Your task to perform on an android device: show emergency info Image 0: 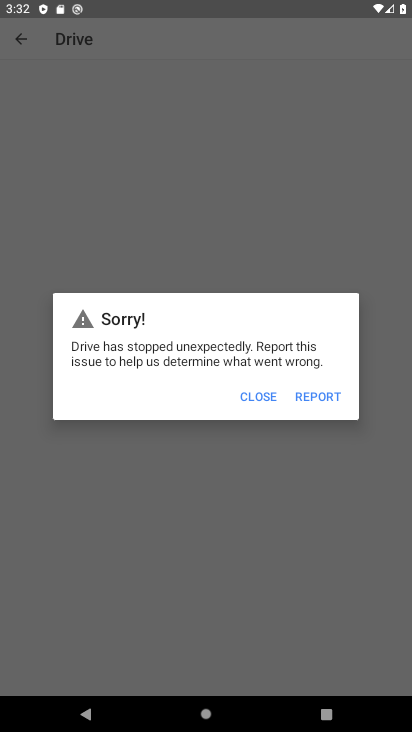
Step 0: press home button
Your task to perform on an android device: show emergency info Image 1: 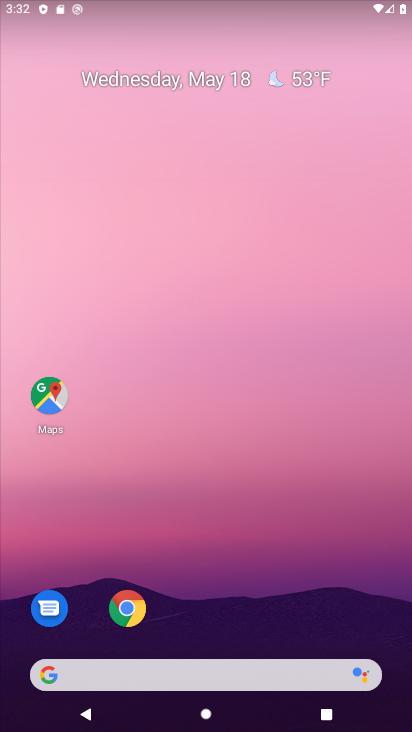
Step 1: drag from (192, 569) to (186, 27)
Your task to perform on an android device: show emergency info Image 2: 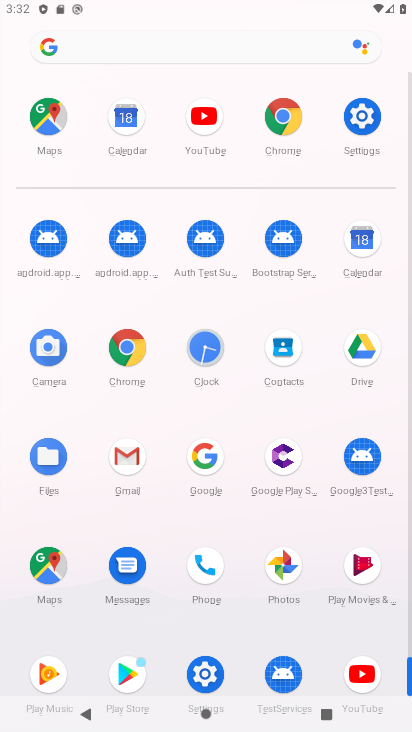
Step 2: click (358, 120)
Your task to perform on an android device: show emergency info Image 3: 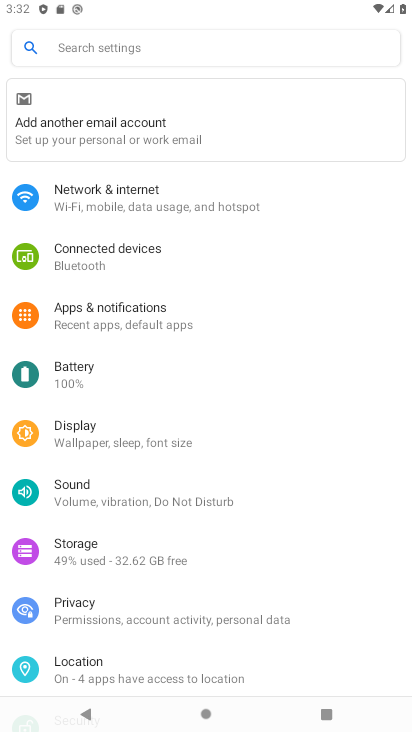
Step 3: drag from (278, 605) to (227, 124)
Your task to perform on an android device: show emergency info Image 4: 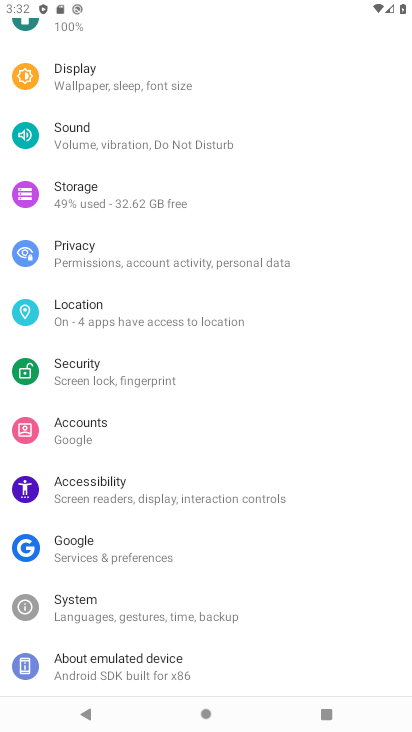
Step 4: click (207, 678)
Your task to perform on an android device: show emergency info Image 5: 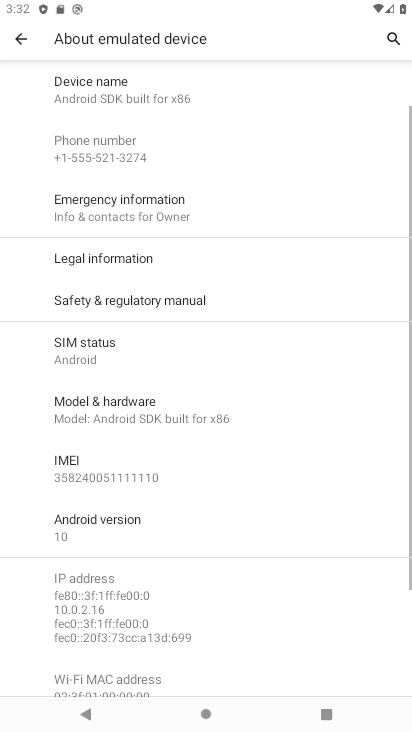
Step 5: click (145, 214)
Your task to perform on an android device: show emergency info Image 6: 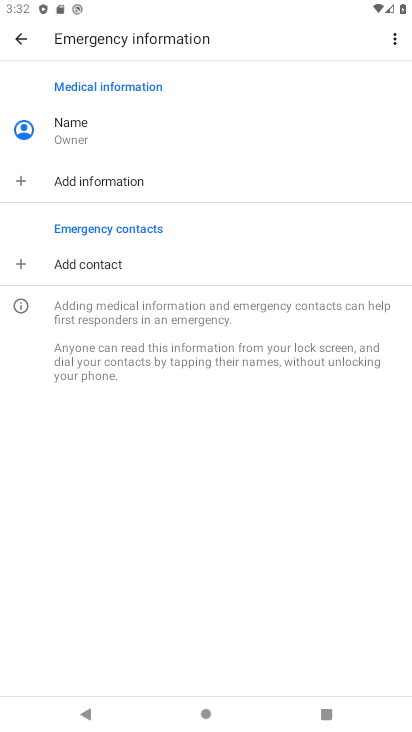
Step 6: task complete